Your task to perform on an android device: Go to calendar. Show me events next week Image 0: 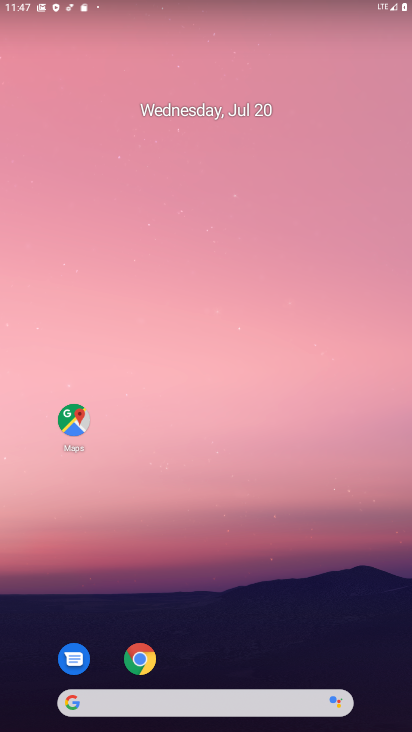
Step 0: drag from (209, 503) to (151, 233)
Your task to perform on an android device: Go to calendar. Show me events next week Image 1: 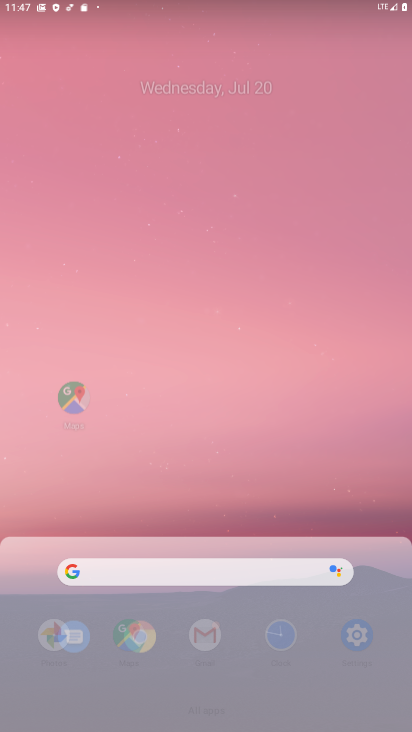
Step 1: drag from (255, 637) to (230, 287)
Your task to perform on an android device: Go to calendar. Show me events next week Image 2: 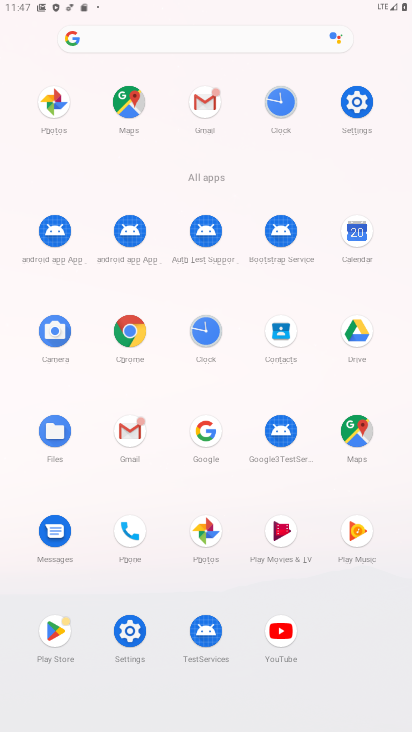
Step 2: click (235, 263)
Your task to perform on an android device: Go to calendar. Show me events next week Image 3: 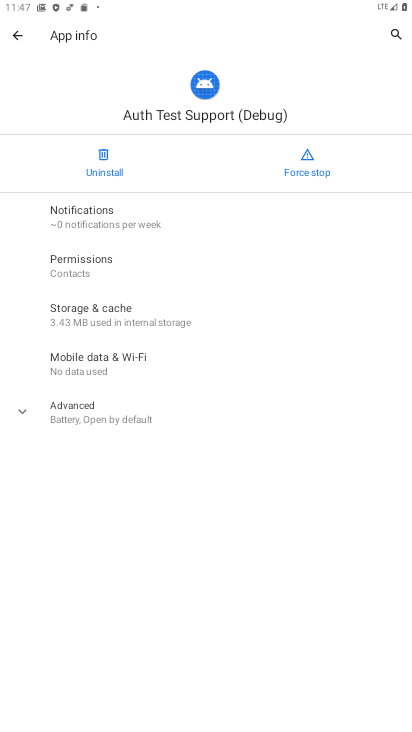
Step 3: click (12, 34)
Your task to perform on an android device: Go to calendar. Show me events next week Image 4: 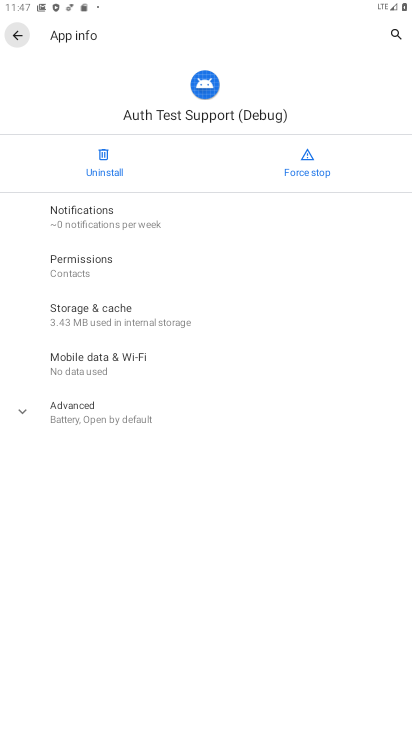
Step 4: click (12, 33)
Your task to perform on an android device: Go to calendar. Show me events next week Image 5: 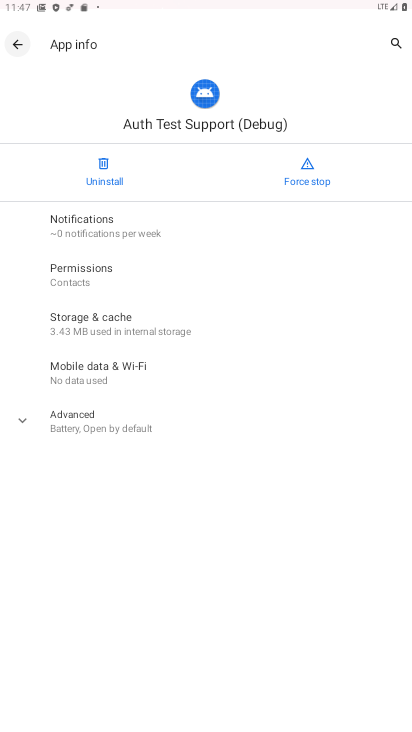
Step 5: click (14, 33)
Your task to perform on an android device: Go to calendar. Show me events next week Image 6: 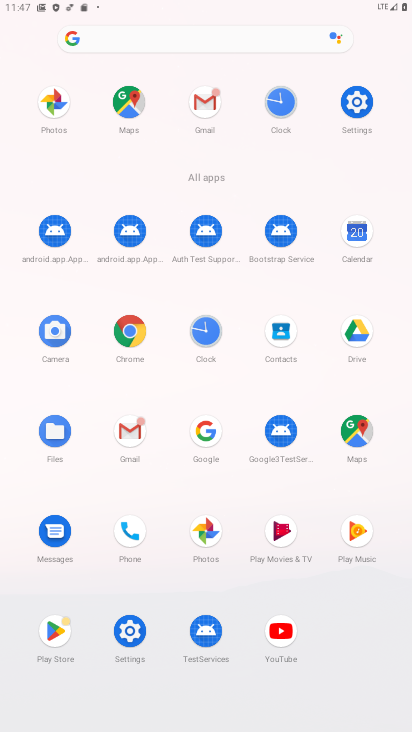
Step 6: click (357, 227)
Your task to perform on an android device: Go to calendar. Show me events next week Image 7: 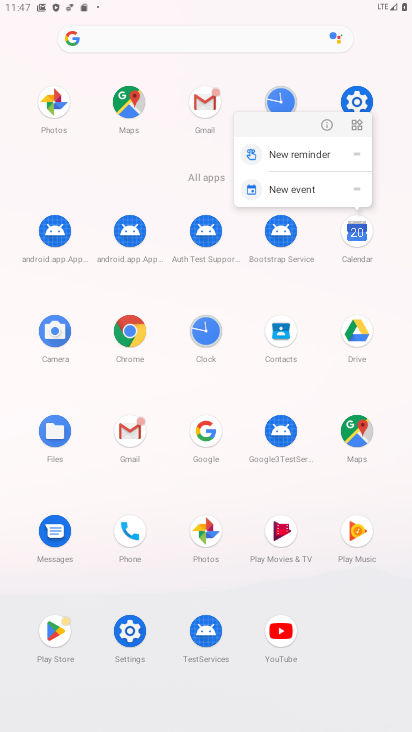
Step 7: click (361, 230)
Your task to perform on an android device: Go to calendar. Show me events next week Image 8: 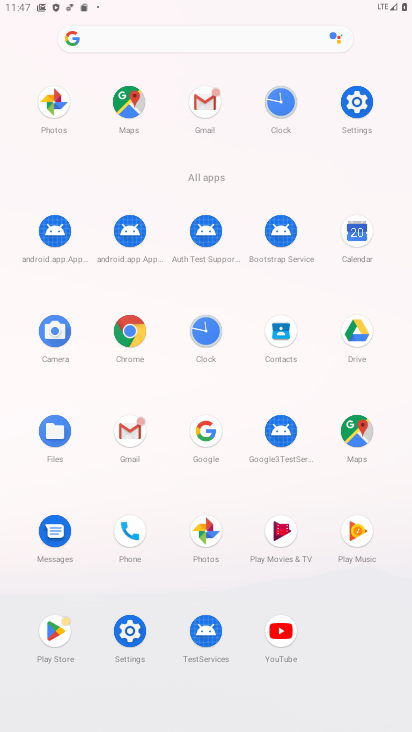
Step 8: click (363, 232)
Your task to perform on an android device: Go to calendar. Show me events next week Image 9: 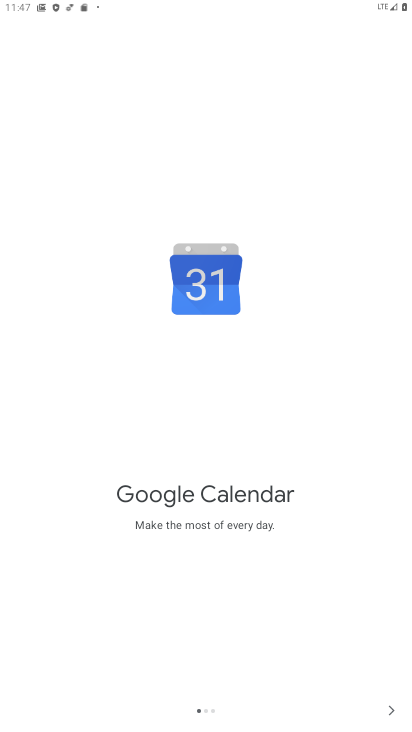
Step 9: click (398, 705)
Your task to perform on an android device: Go to calendar. Show me events next week Image 10: 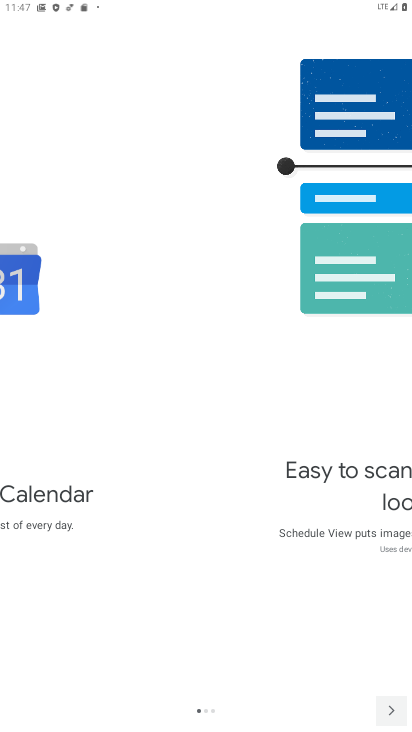
Step 10: click (395, 708)
Your task to perform on an android device: Go to calendar. Show me events next week Image 11: 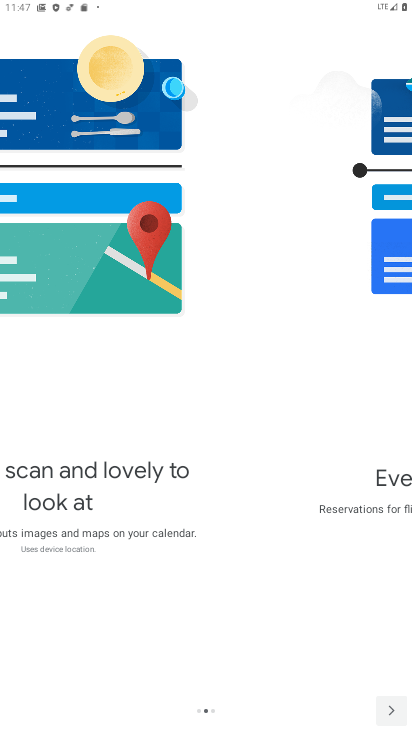
Step 11: click (396, 709)
Your task to perform on an android device: Go to calendar. Show me events next week Image 12: 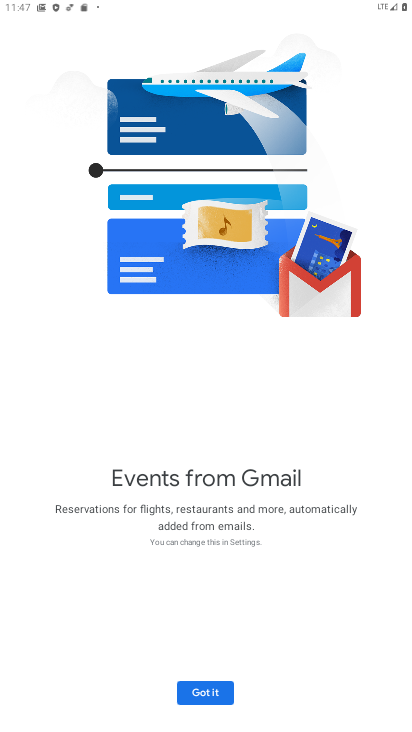
Step 12: click (398, 711)
Your task to perform on an android device: Go to calendar. Show me events next week Image 13: 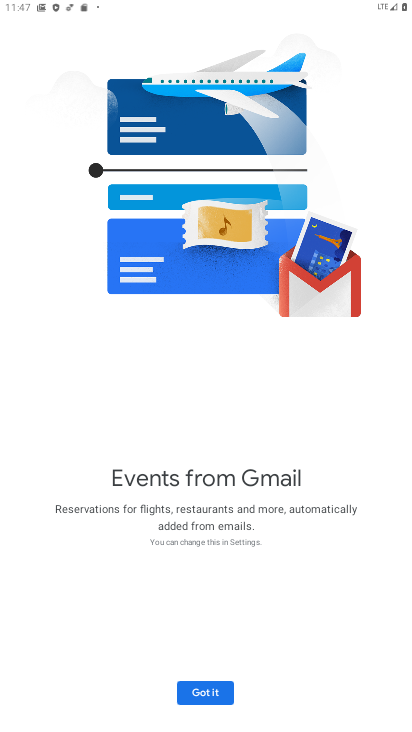
Step 13: click (207, 693)
Your task to perform on an android device: Go to calendar. Show me events next week Image 14: 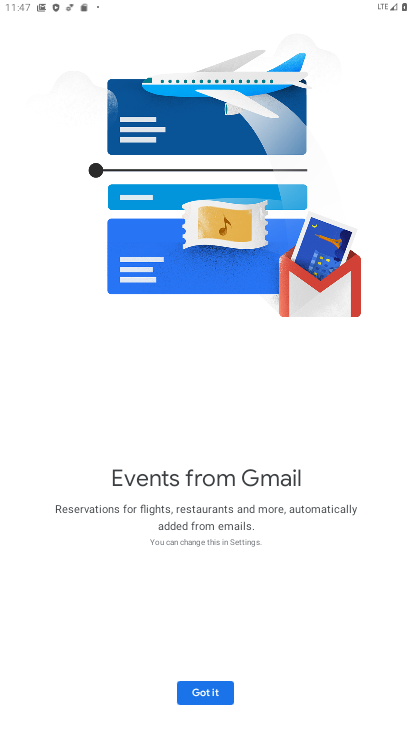
Step 14: click (206, 692)
Your task to perform on an android device: Go to calendar. Show me events next week Image 15: 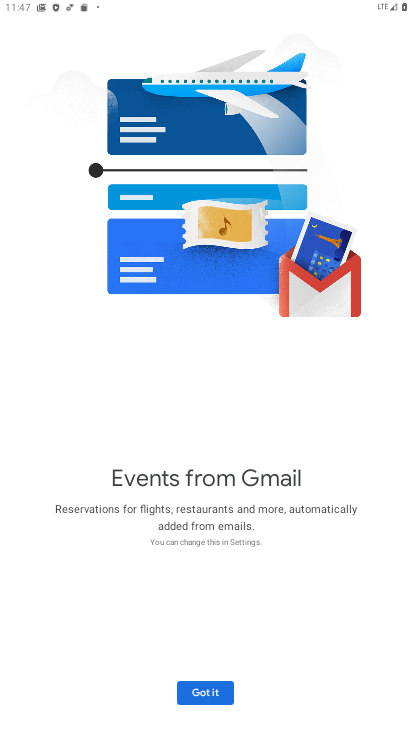
Step 15: click (206, 692)
Your task to perform on an android device: Go to calendar. Show me events next week Image 16: 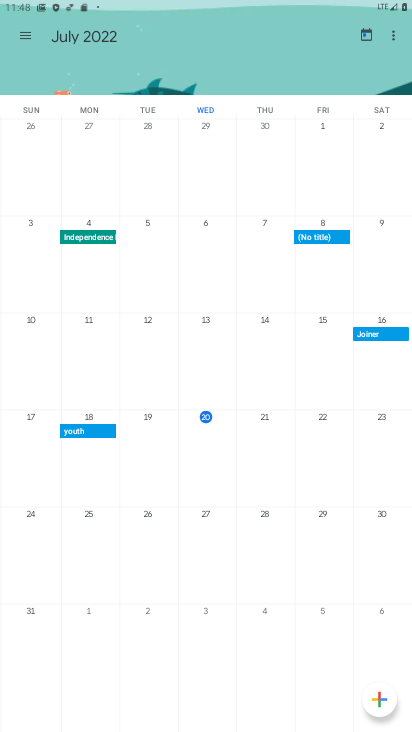
Step 16: task complete